Your task to perform on an android device: Open calendar and show me the second week of next month Image 0: 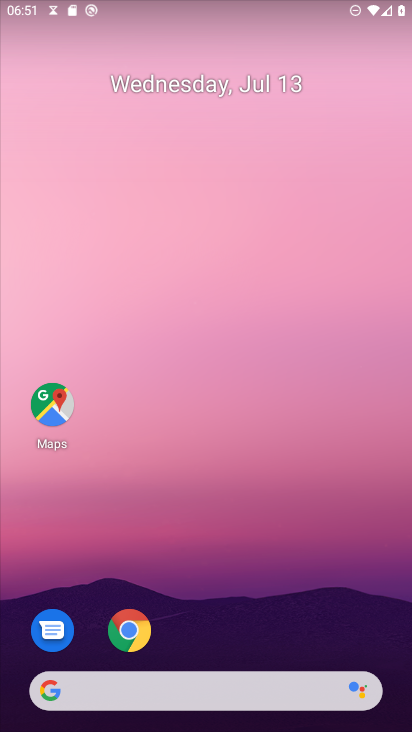
Step 0: drag from (253, 699) to (228, 66)
Your task to perform on an android device: Open calendar and show me the second week of next month Image 1: 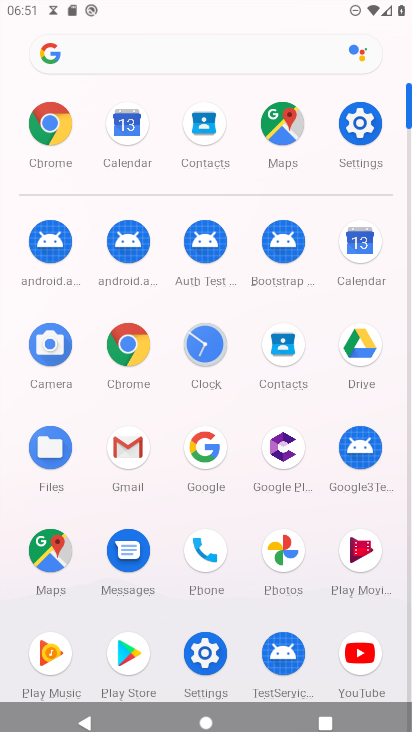
Step 1: click (368, 236)
Your task to perform on an android device: Open calendar and show me the second week of next month Image 2: 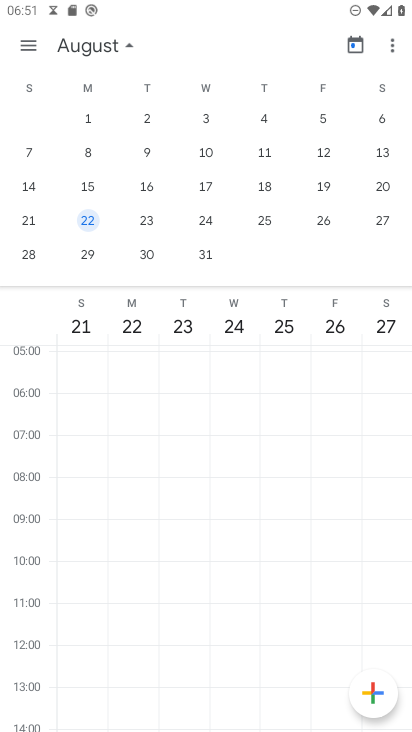
Step 2: click (208, 154)
Your task to perform on an android device: Open calendar and show me the second week of next month Image 3: 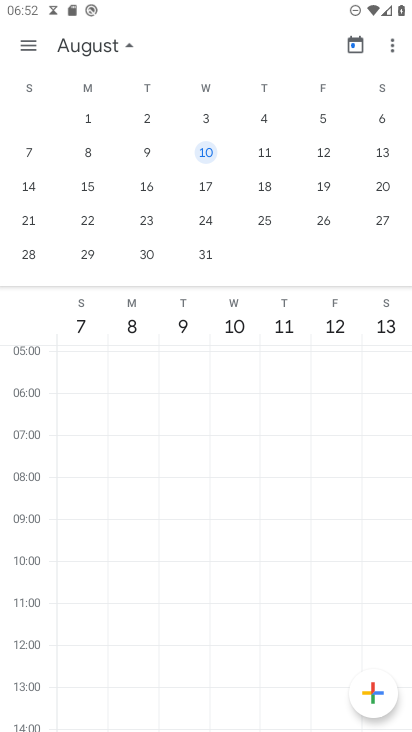
Step 3: task complete